Your task to perform on an android device: create a new album in the google photos Image 0: 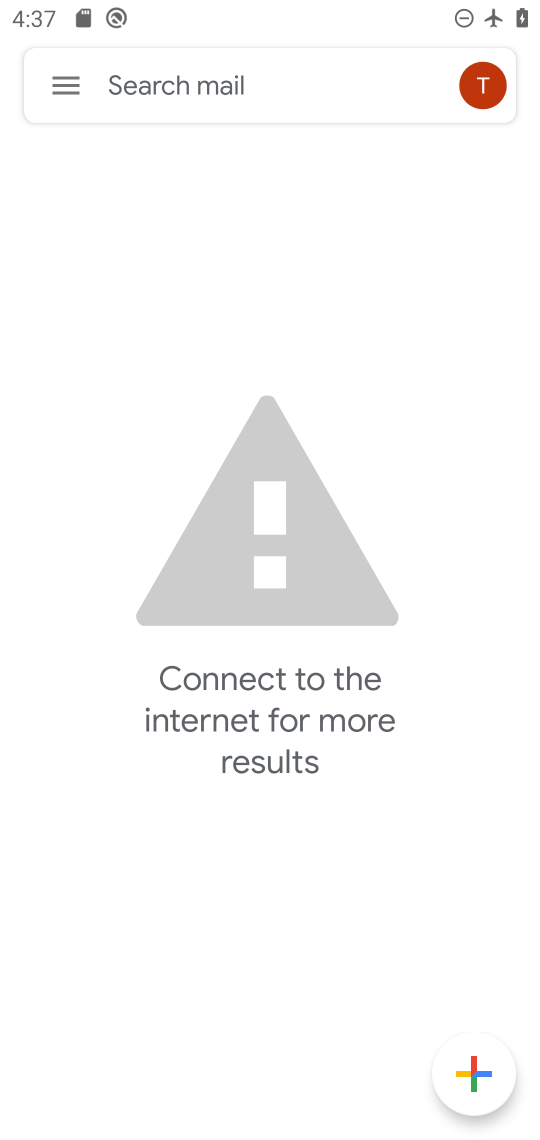
Step 0: press home button
Your task to perform on an android device: create a new album in the google photos Image 1: 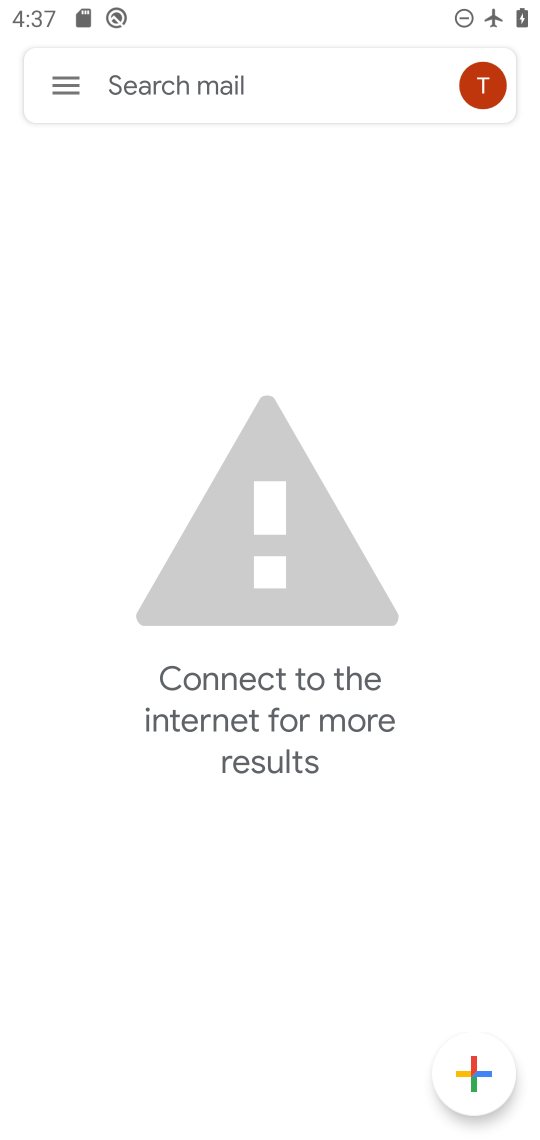
Step 1: press home button
Your task to perform on an android device: create a new album in the google photos Image 2: 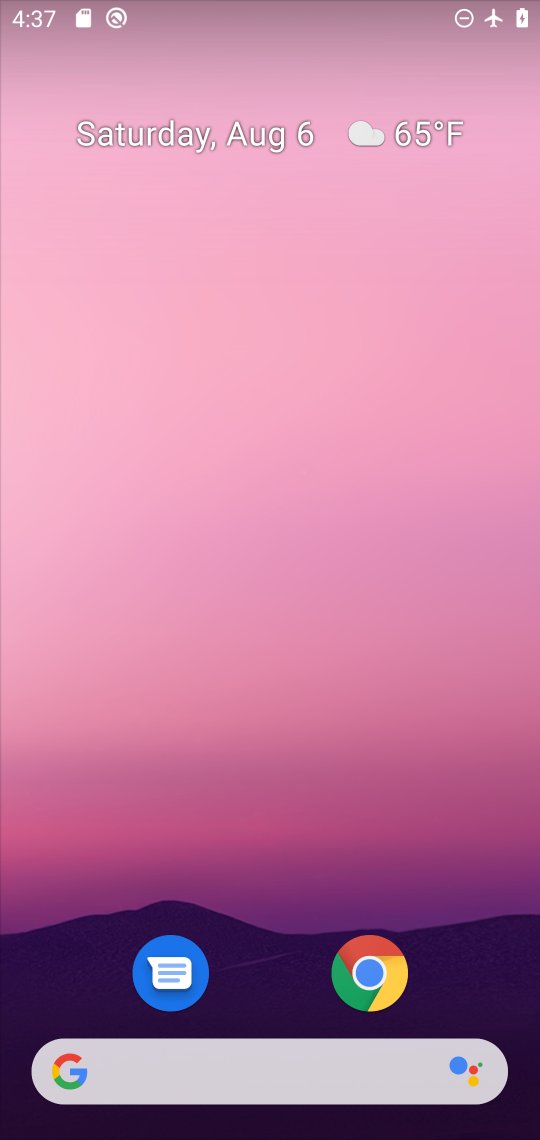
Step 2: drag from (279, 915) to (267, 207)
Your task to perform on an android device: create a new album in the google photos Image 3: 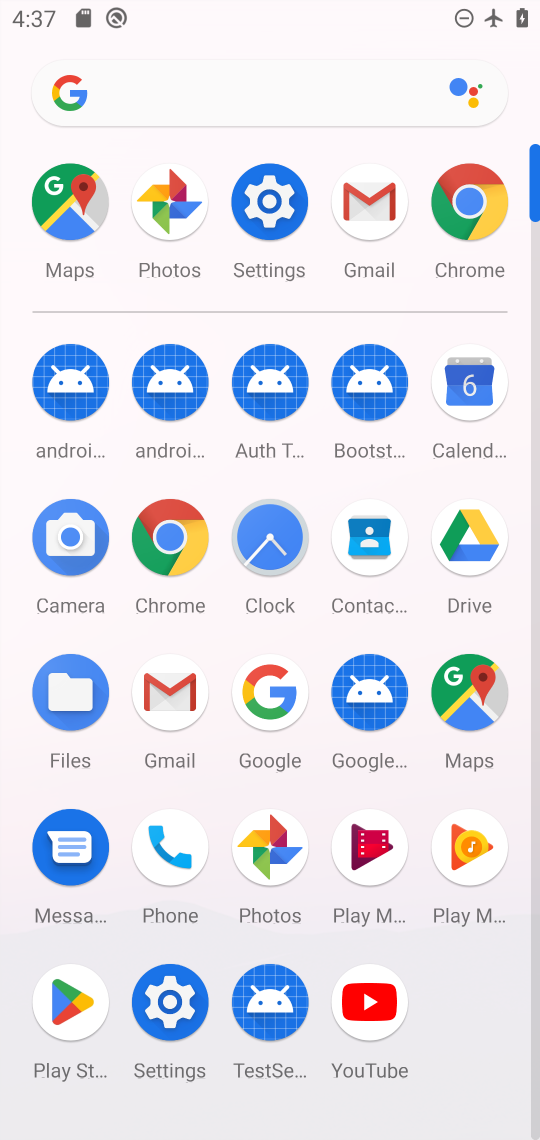
Step 3: click (274, 851)
Your task to perform on an android device: create a new album in the google photos Image 4: 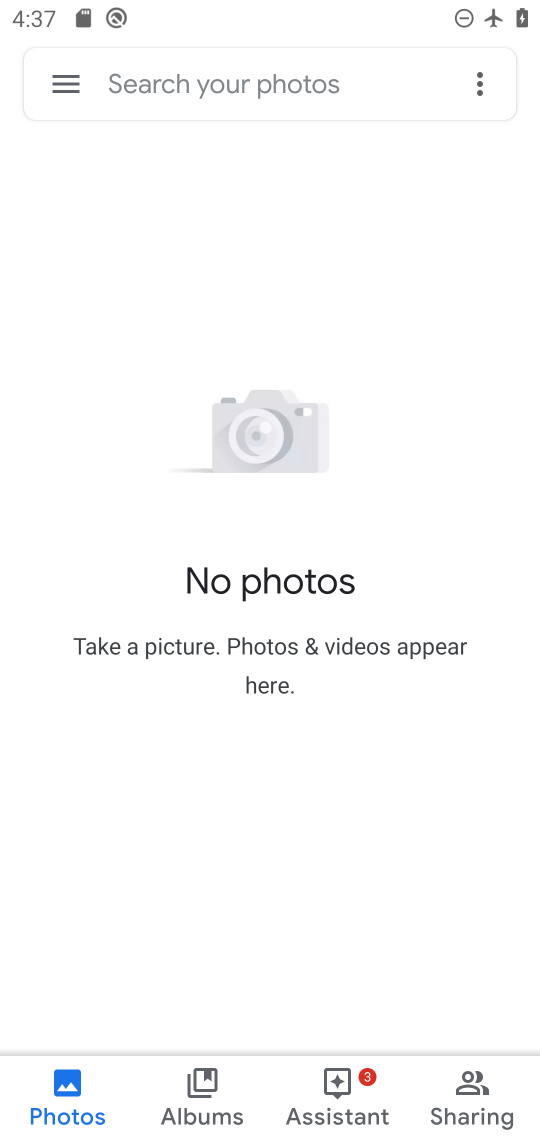
Step 4: click (205, 1105)
Your task to perform on an android device: create a new album in the google photos Image 5: 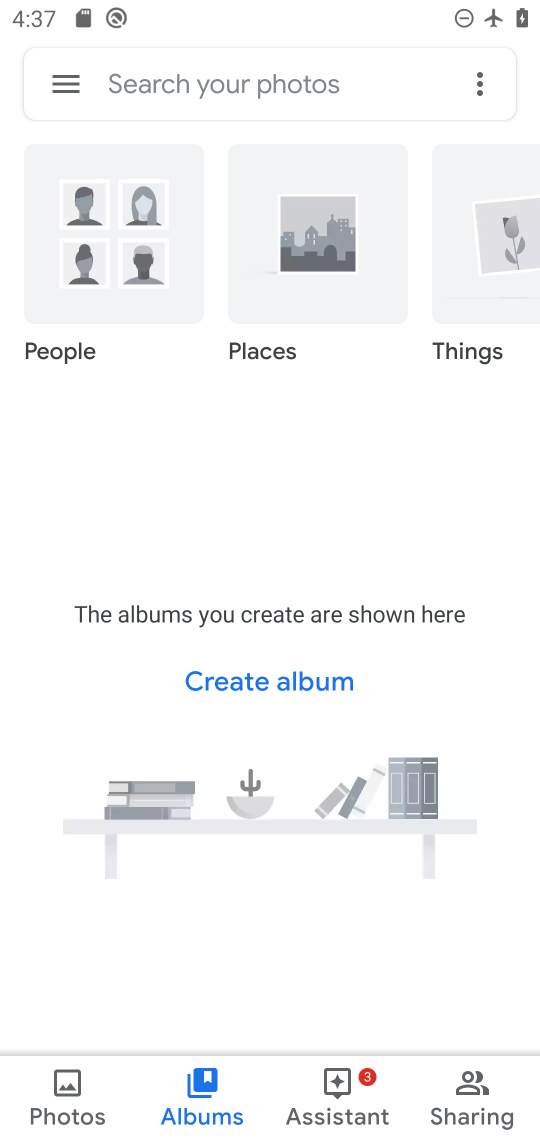
Step 5: click (243, 672)
Your task to perform on an android device: create a new album in the google photos Image 6: 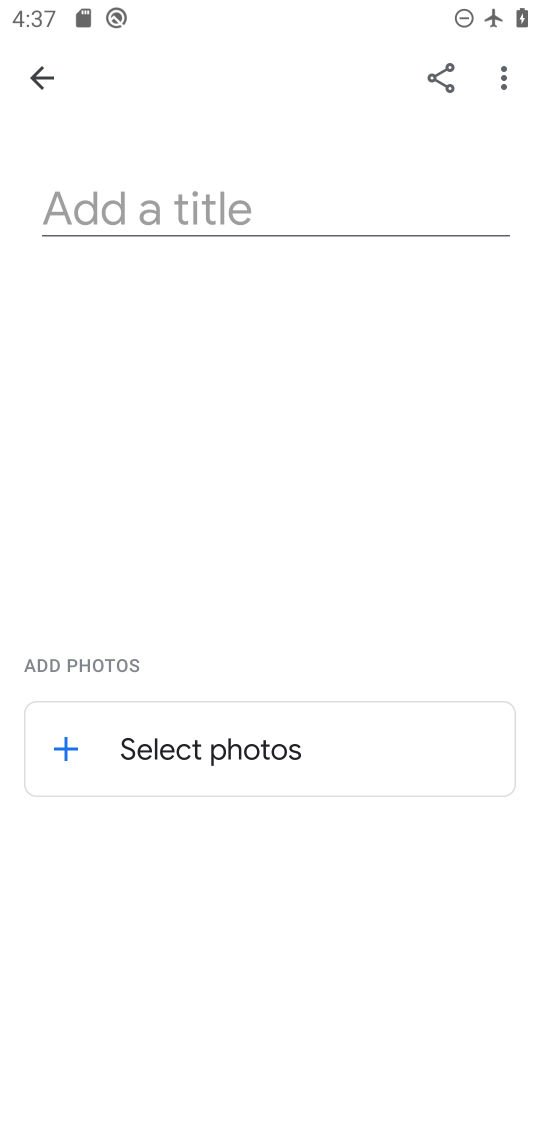
Step 6: click (268, 213)
Your task to perform on an android device: create a new album in the google photos Image 7: 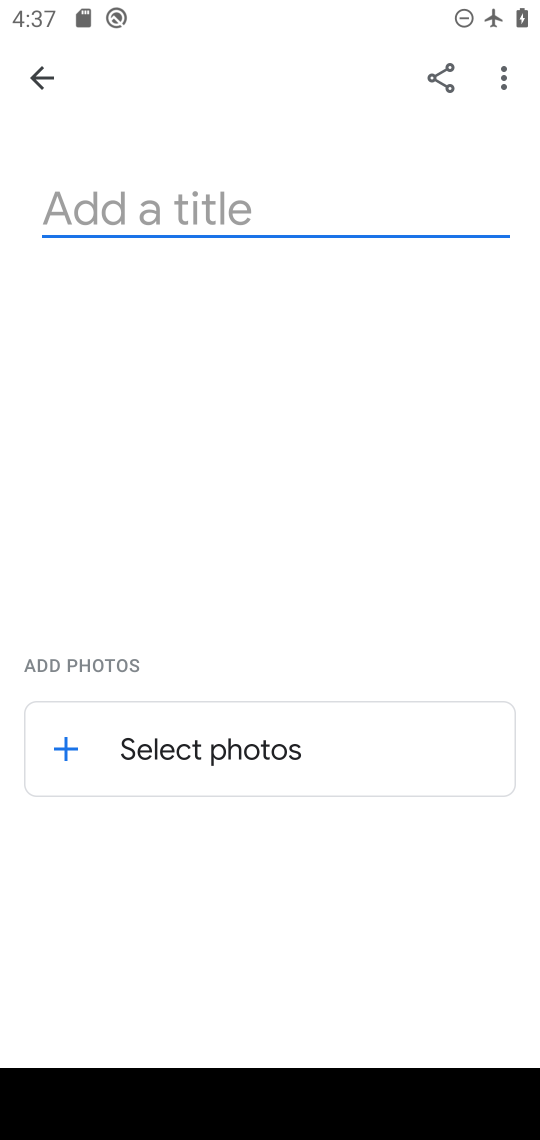
Step 7: type "new album"
Your task to perform on an android device: create a new album in the google photos Image 8: 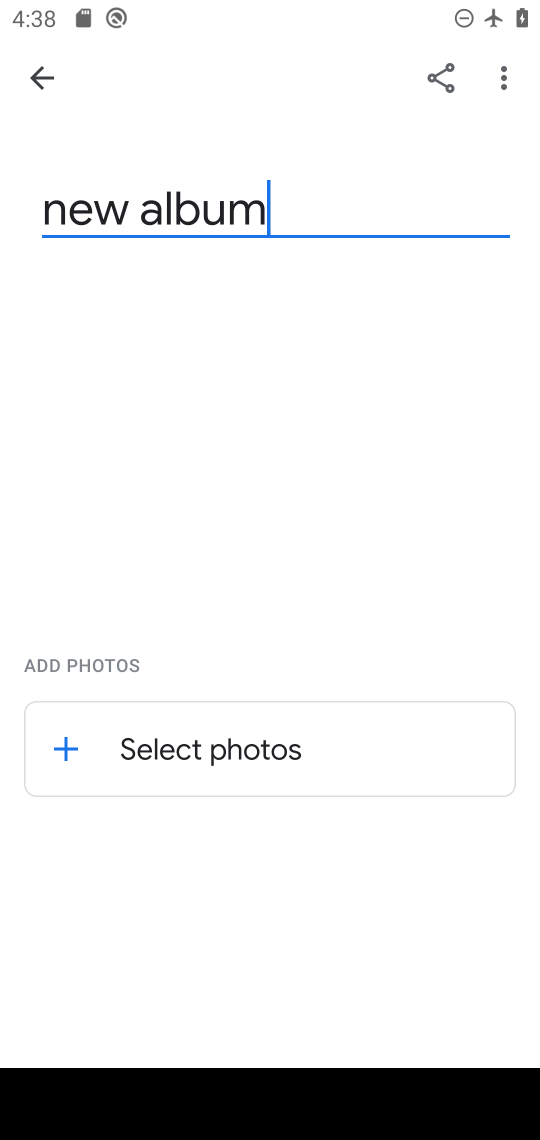
Step 8: click (505, 65)
Your task to perform on an android device: create a new album in the google photos Image 9: 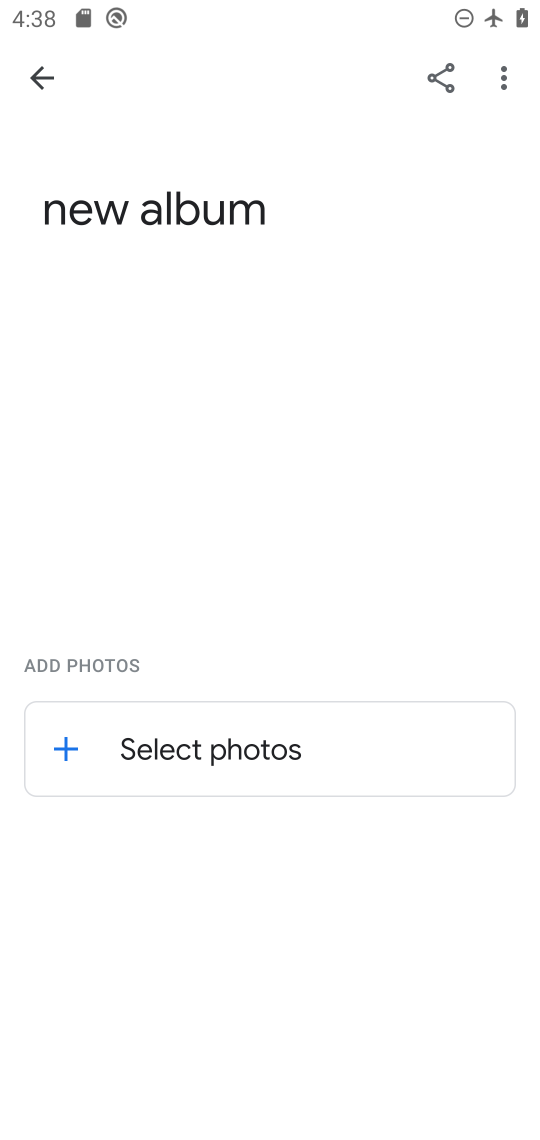
Step 9: click (37, 65)
Your task to perform on an android device: create a new album in the google photos Image 10: 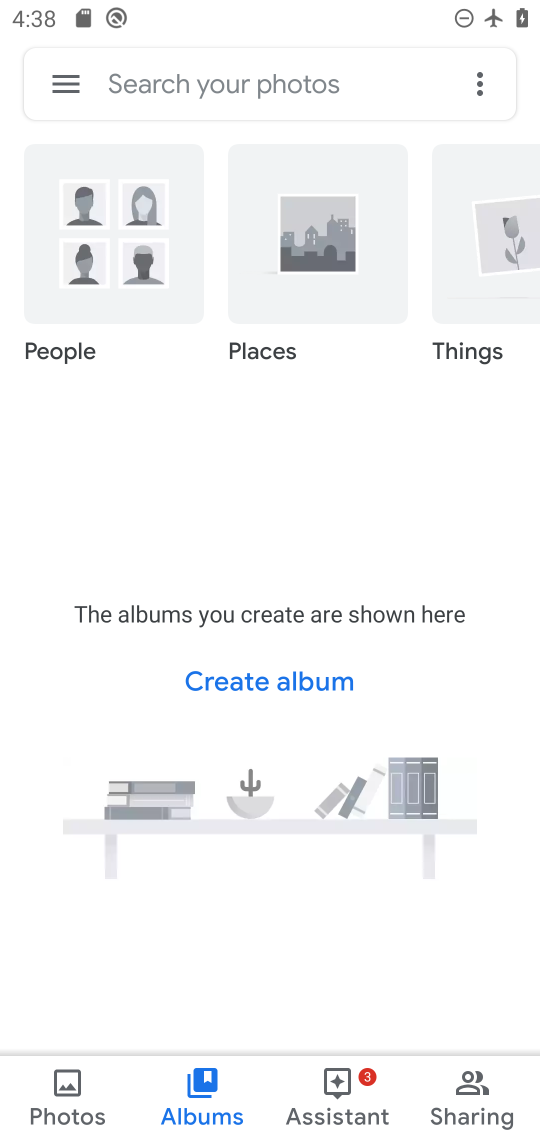
Step 10: task complete